Your task to perform on an android device: Open the Play Movies app and select the watchlist tab. Image 0: 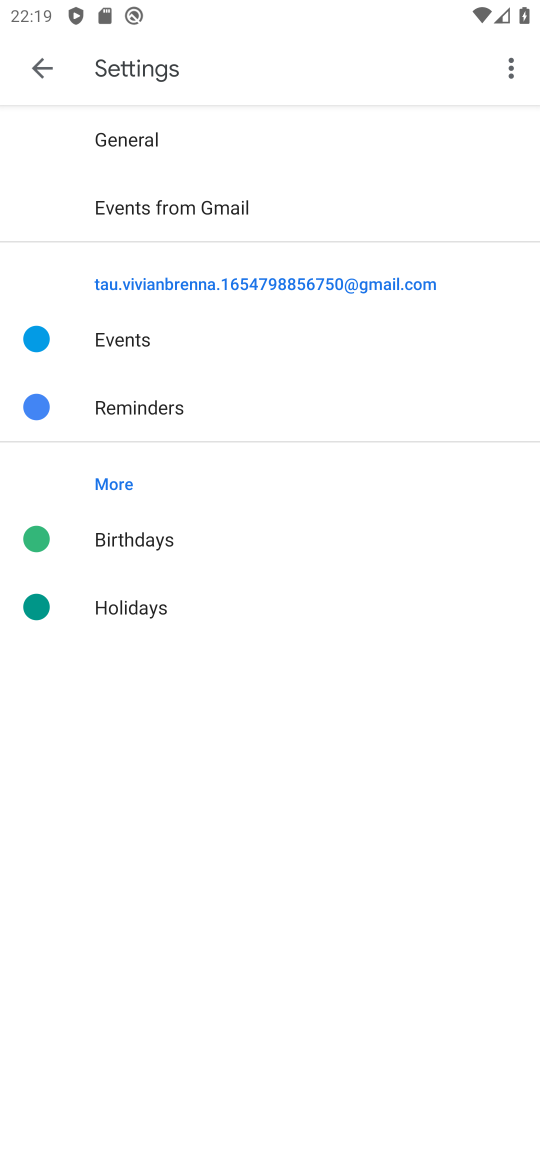
Step 0: press home button
Your task to perform on an android device: Open the Play Movies app and select the watchlist tab. Image 1: 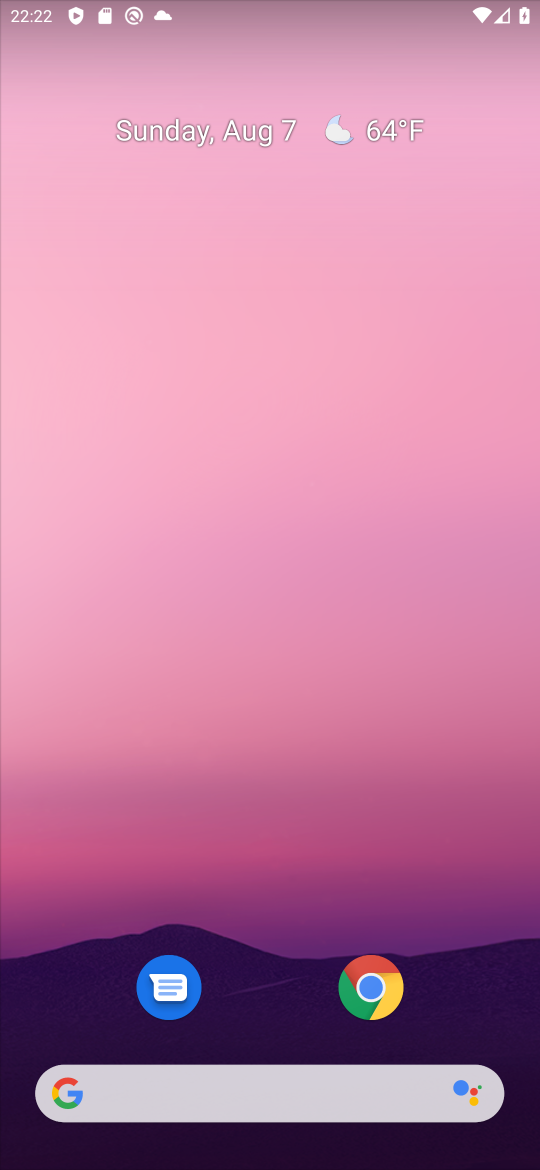
Step 1: drag from (239, 777) to (537, 664)
Your task to perform on an android device: Open the Play Movies app and select the watchlist tab. Image 2: 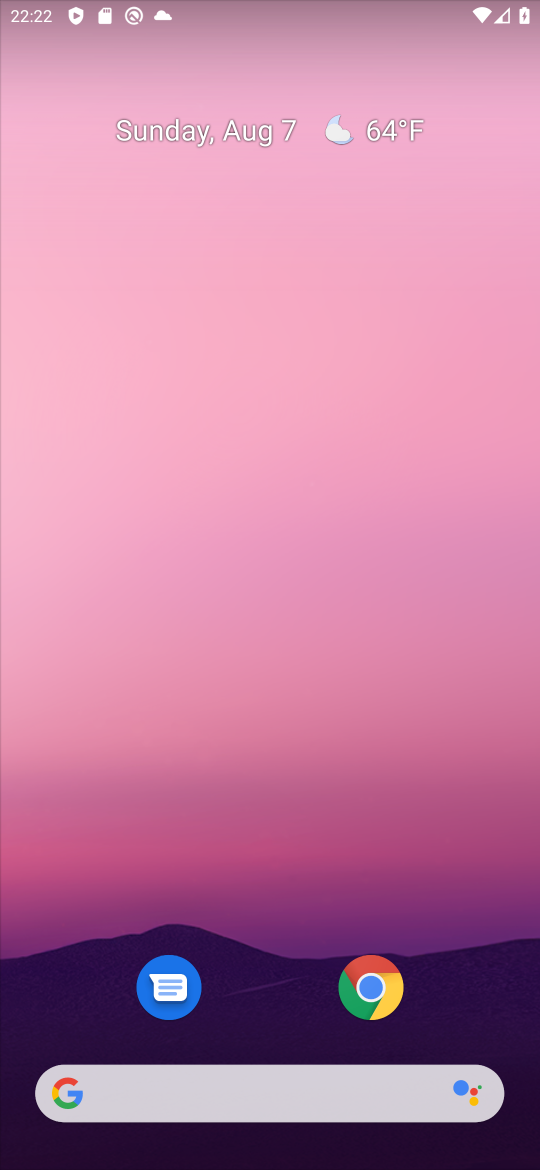
Step 2: drag from (352, 1110) to (423, 29)
Your task to perform on an android device: Open the Play Movies app and select the watchlist tab. Image 3: 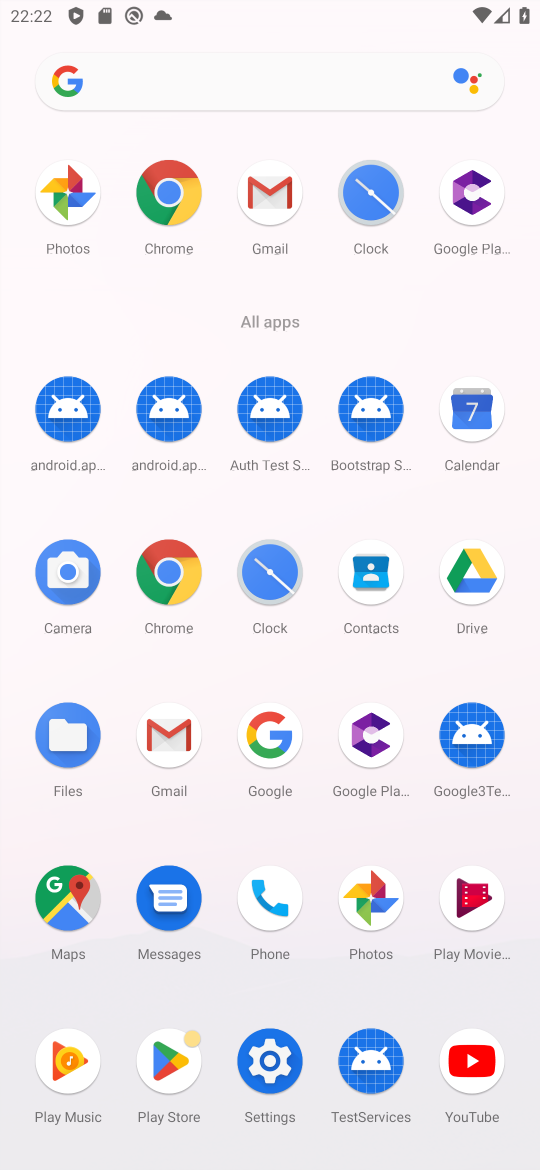
Step 3: click (457, 901)
Your task to perform on an android device: Open the Play Movies app and select the watchlist tab. Image 4: 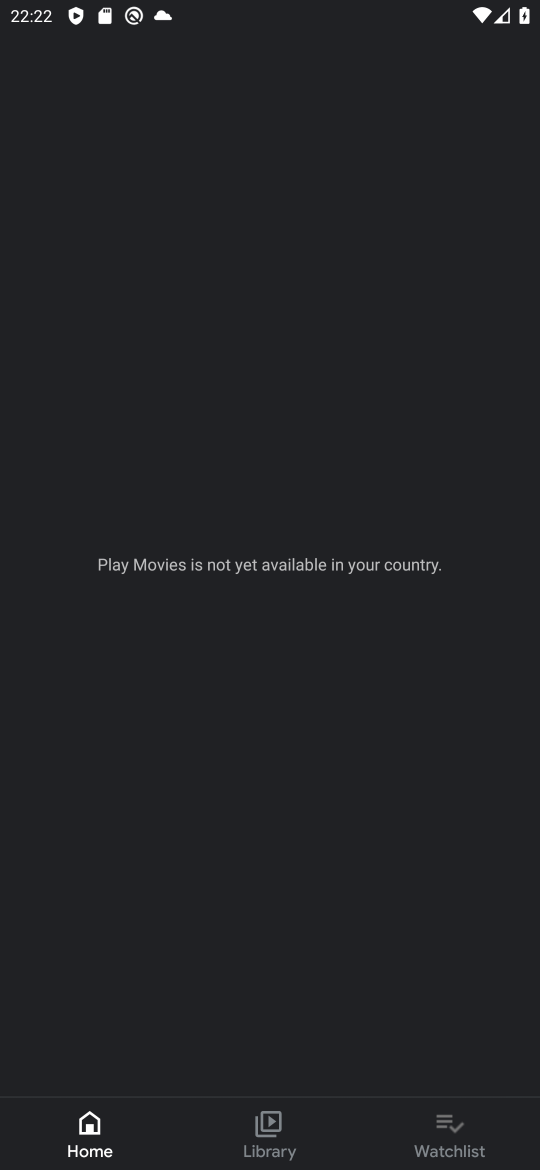
Step 4: click (468, 1134)
Your task to perform on an android device: Open the Play Movies app and select the watchlist tab. Image 5: 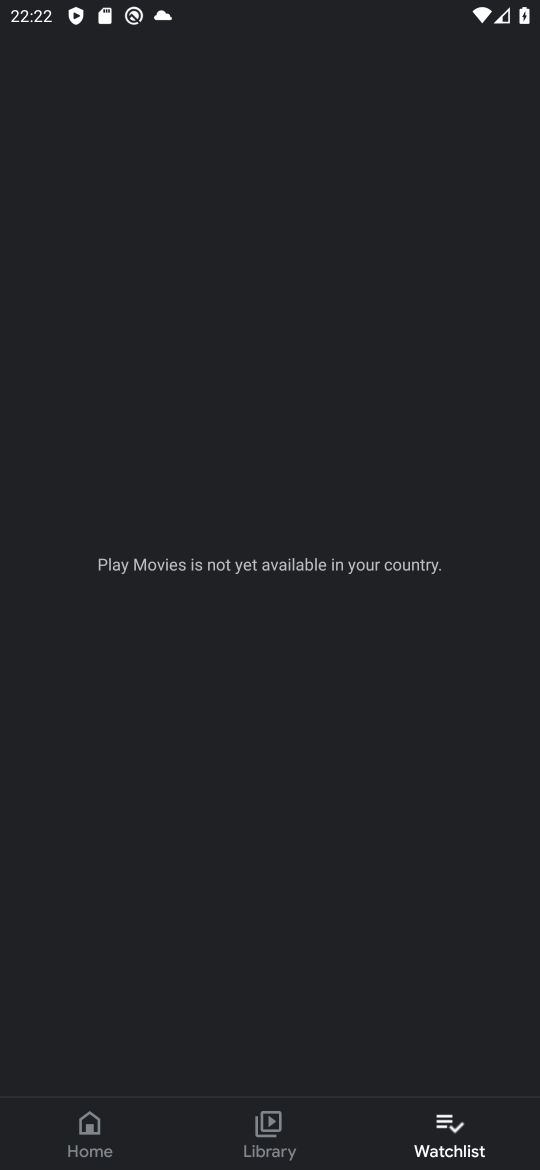
Step 5: task complete